Your task to perform on an android device: change the clock display to digital Image 0: 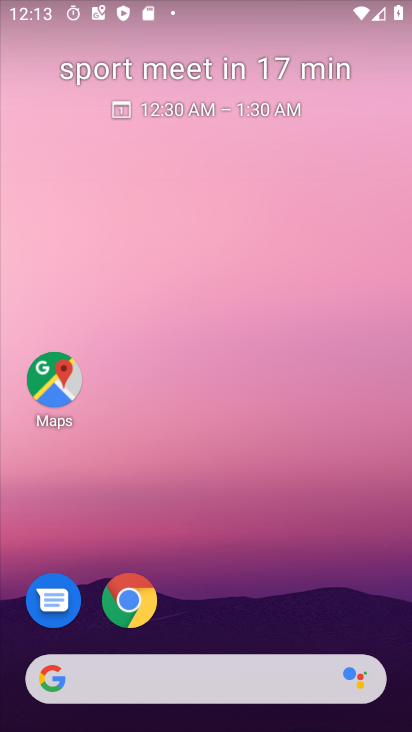
Step 0: drag from (187, 593) to (262, 54)
Your task to perform on an android device: change the clock display to digital Image 1: 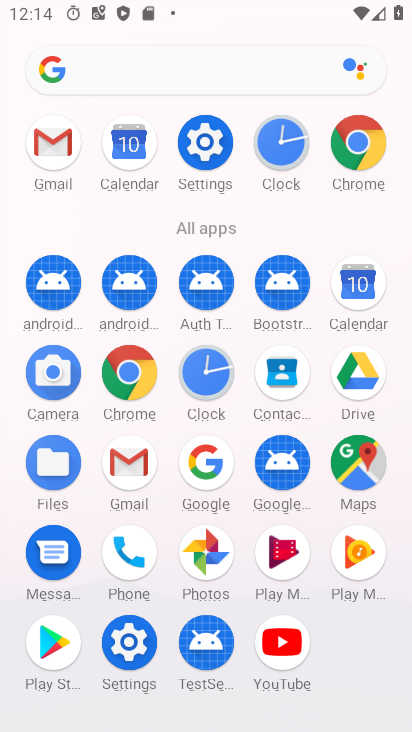
Step 1: click (275, 157)
Your task to perform on an android device: change the clock display to digital Image 2: 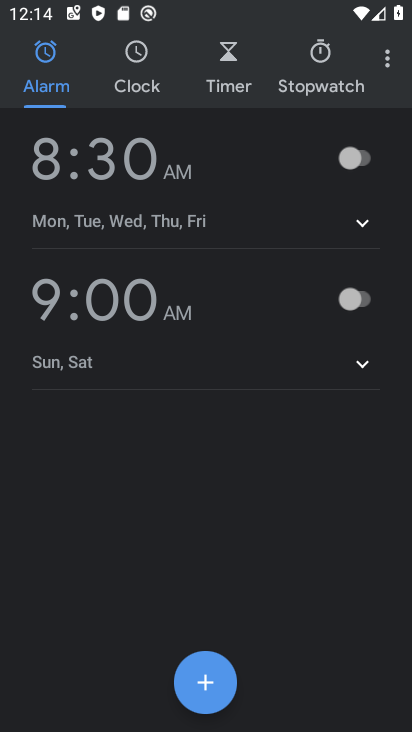
Step 2: click (389, 44)
Your task to perform on an android device: change the clock display to digital Image 3: 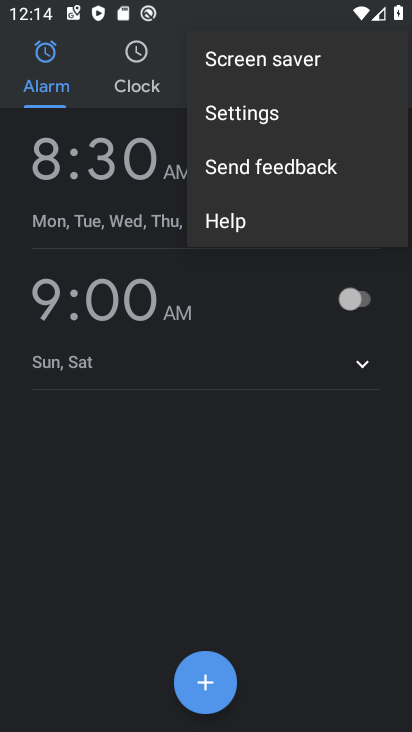
Step 3: click (258, 109)
Your task to perform on an android device: change the clock display to digital Image 4: 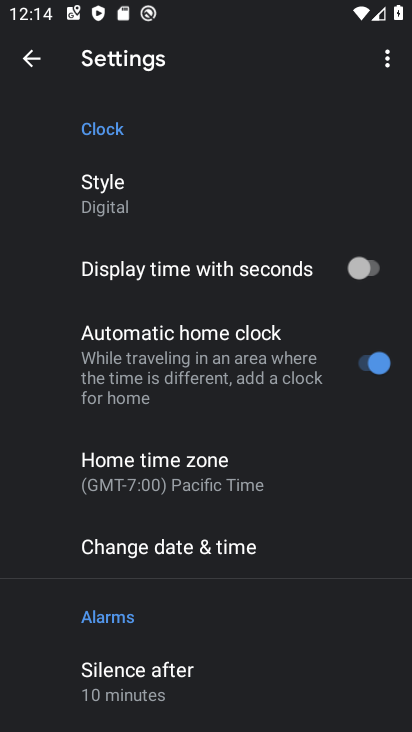
Step 4: click (158, 192)
Your task to perform on an android device: change the clock display to digital Image 5: 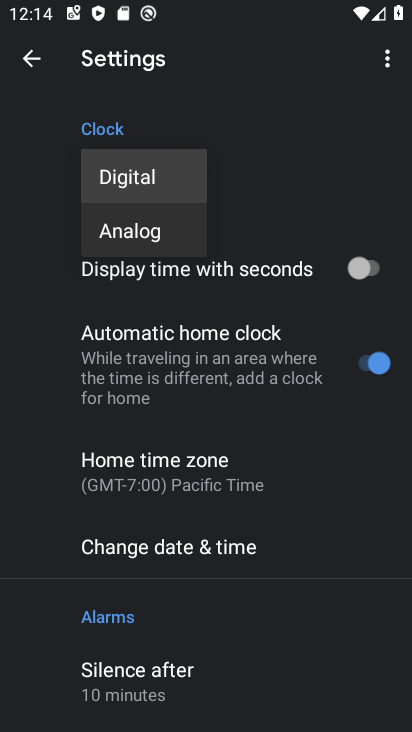
Step 5: task complete